Your task to perform on an android device: Go to privacy settings Image 0: 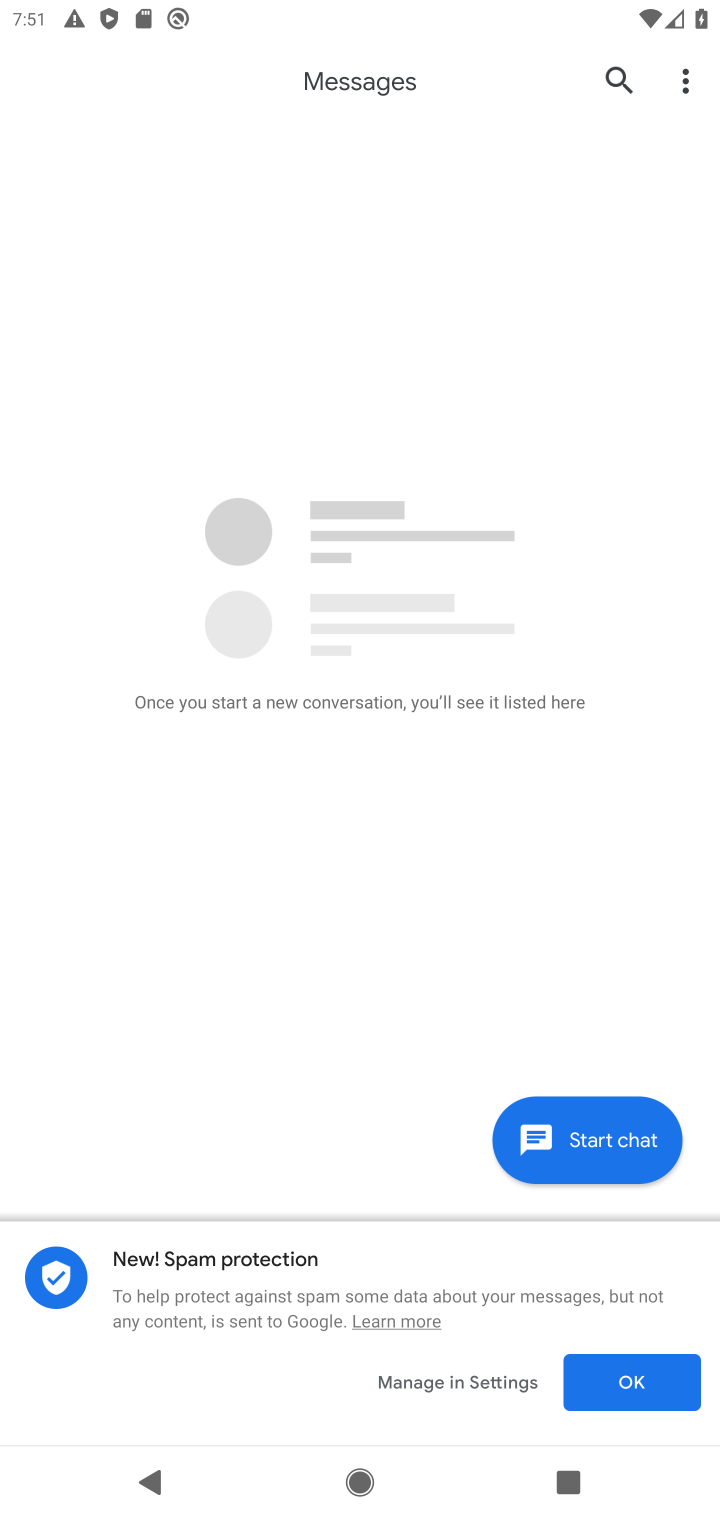
Step 0: press home button
Your task to perform on an android device: Go to privacy settings Image 1: 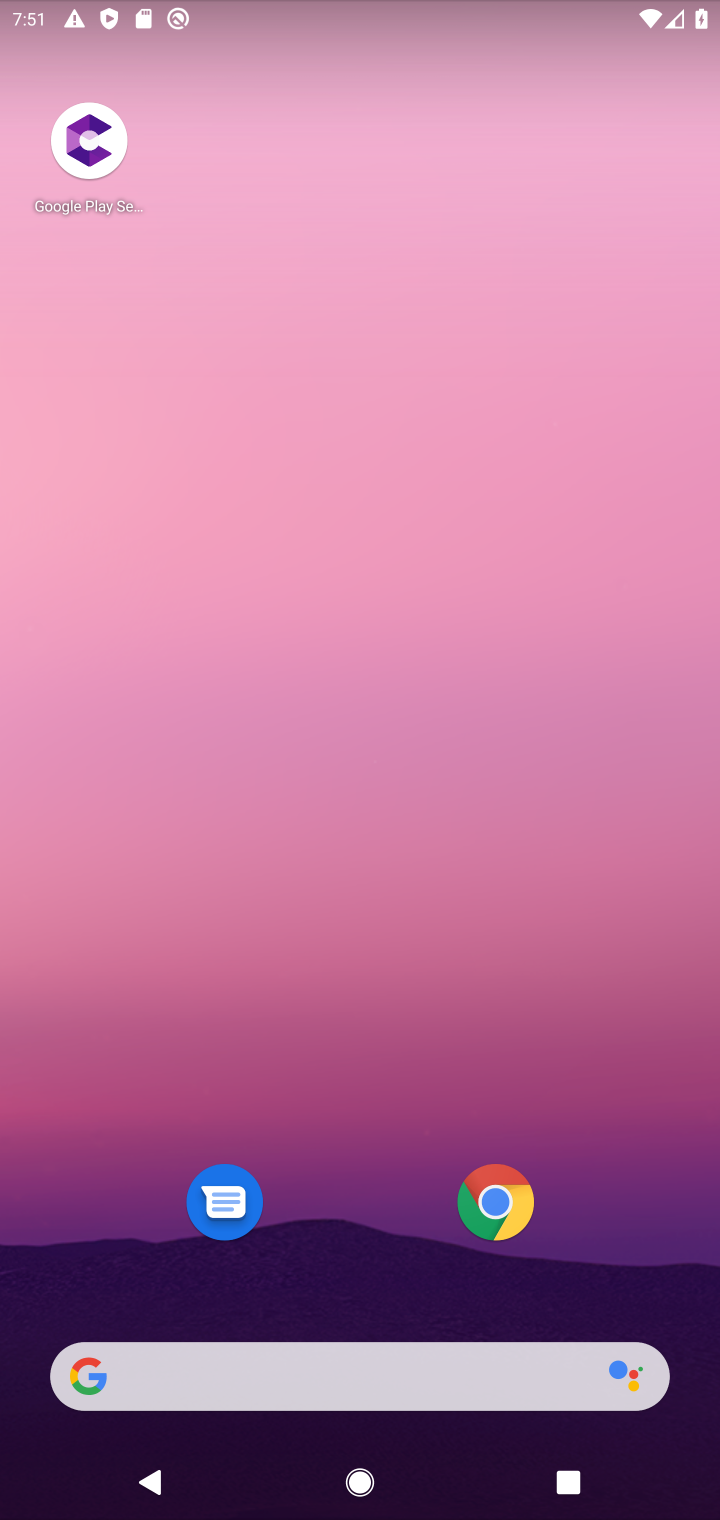
Step 1: drag from (341, 1151) to (341, 82)
Your task to perform on an android device: Go to privacy settings Image 2: 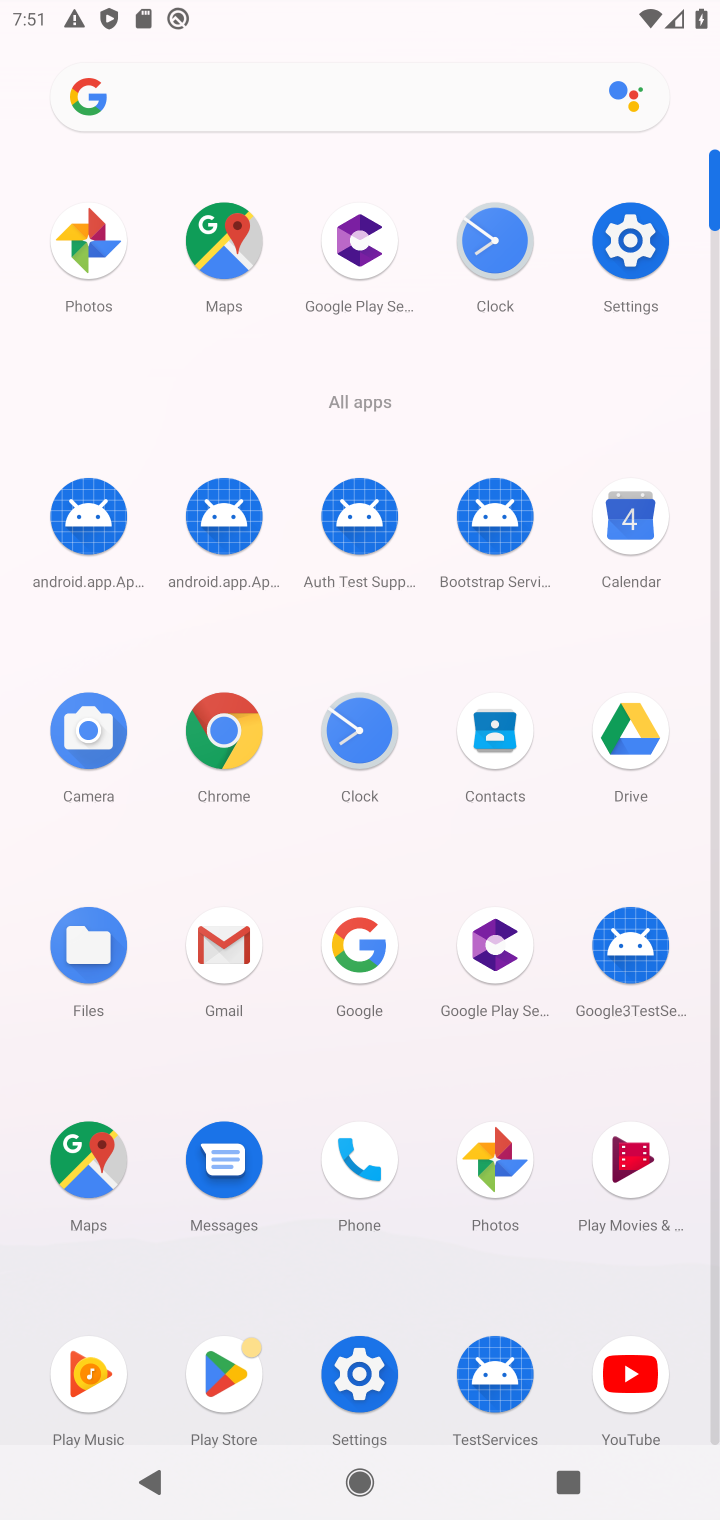
Step 2: click (627, 225)
Your task to perform on an android device: Go to privacy settings Image 3: 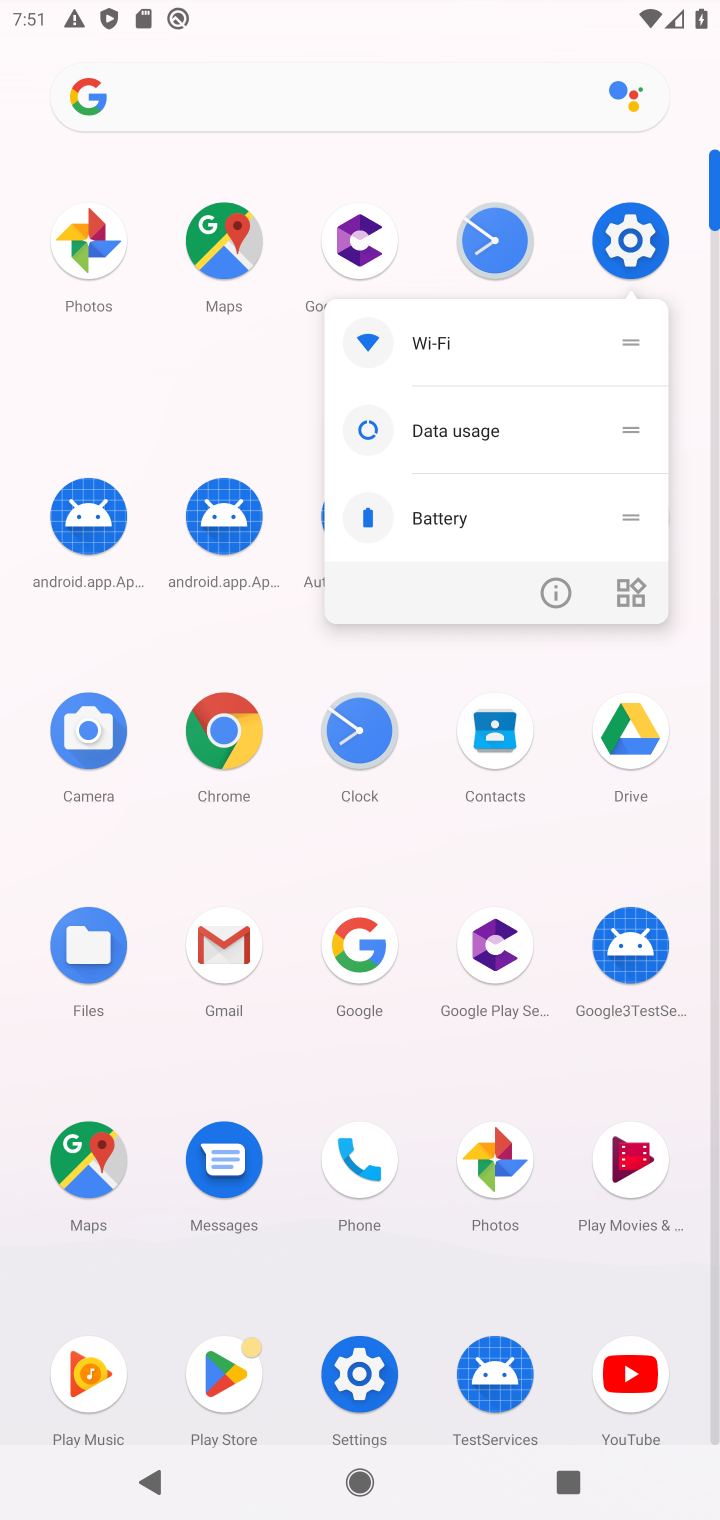
Step 3: click (627, 225)
Your task to perform on an android device: Go to privacy settings Image 4: 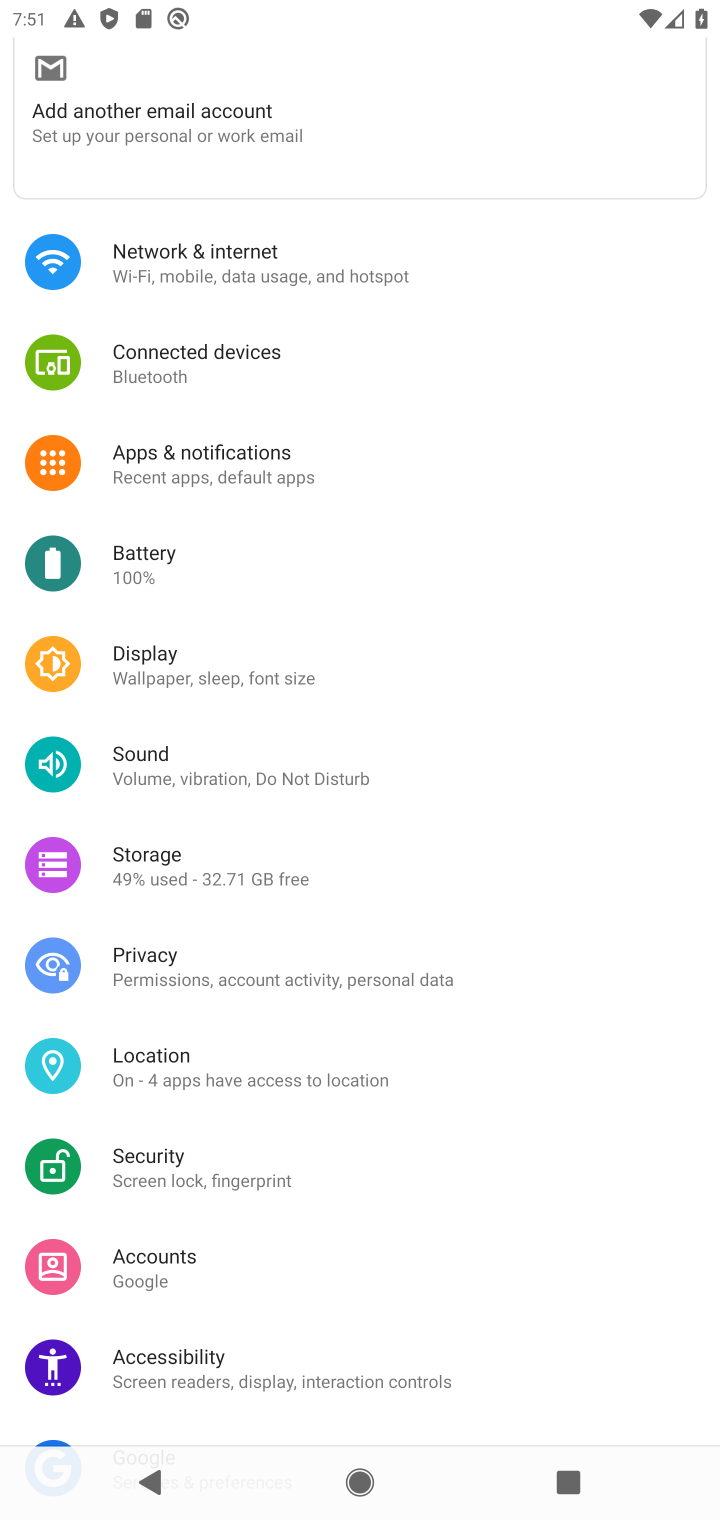
Step 4: click (195, 969)
Your task to perform on an android device: Go to privacy settings Image 5: 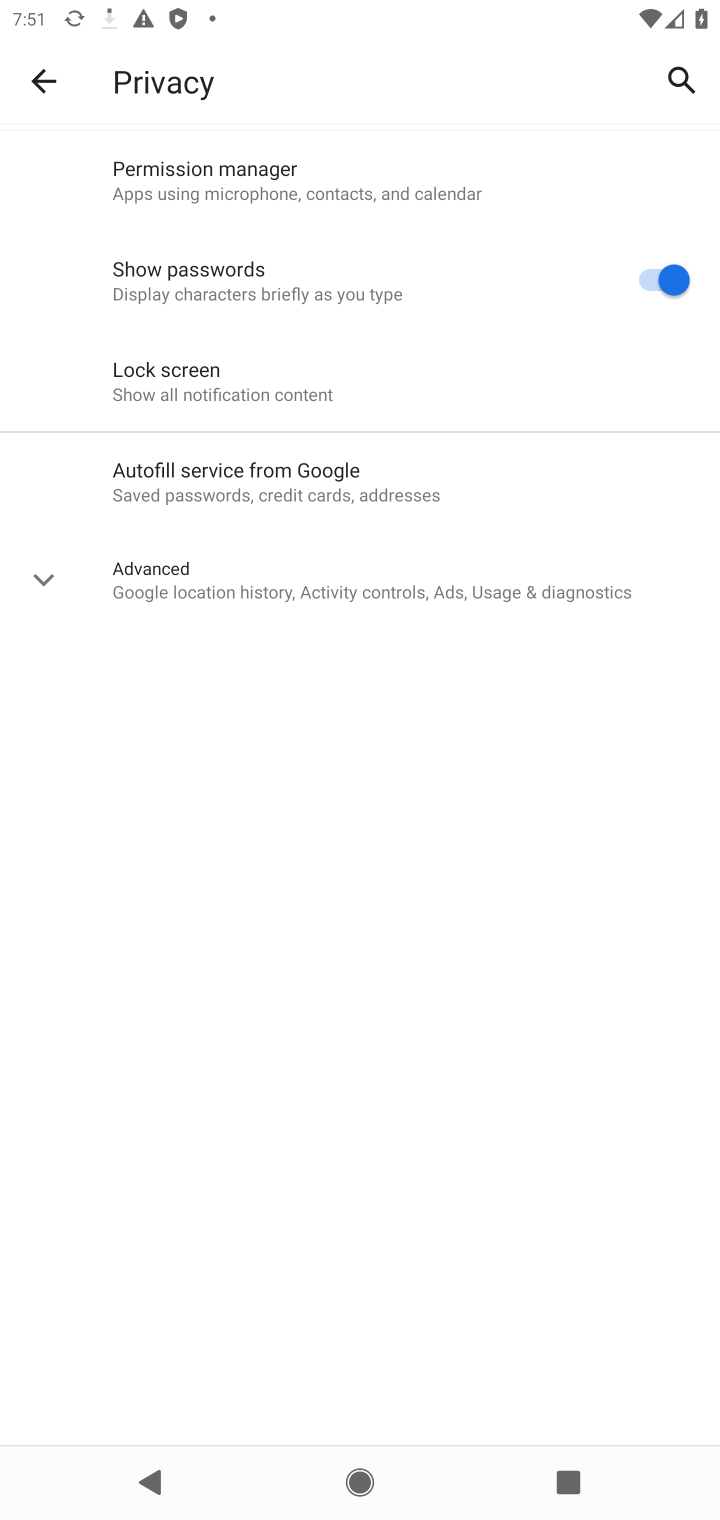
Step 5: task complete